Your task to perform on an android device: Go to eBay Image 0: 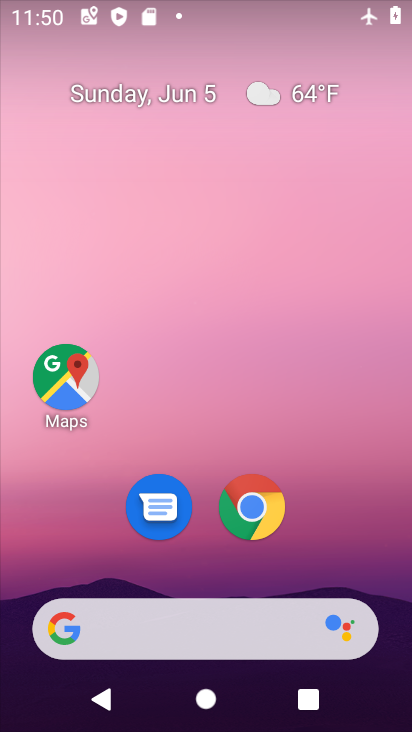
Step 0: click (251, 507)
Your task to perform on an android device: Go to eBay Image 1: 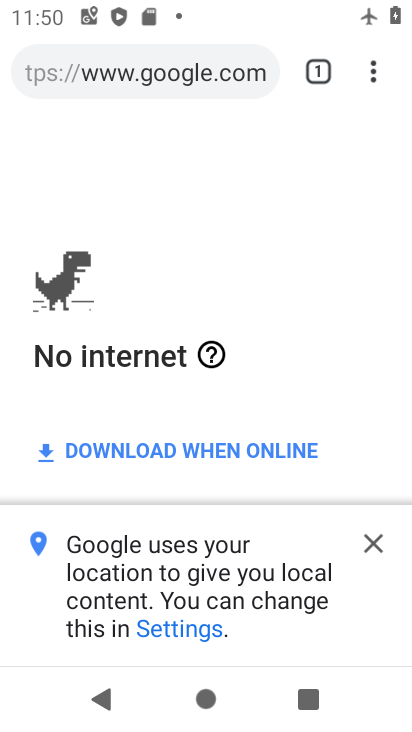
Step 1: click (228, 75)
Your task to perform on an android device: Go to eBay Image 2: 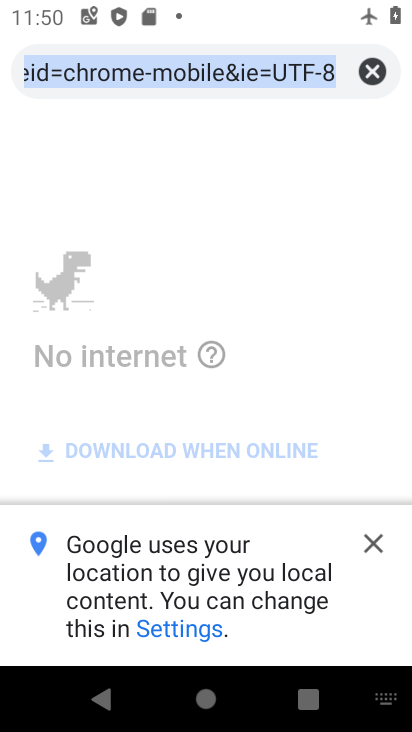
Step 2: type "ebay"
Your task to perform on an android device: Go to eBay Image 3: 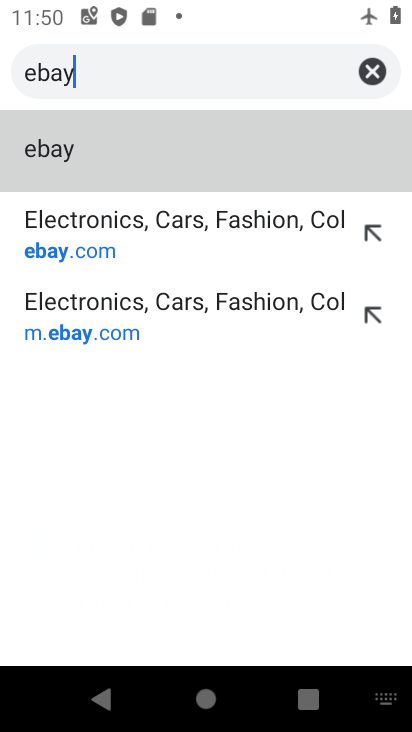
Step 3: click (71, 248)
Your task to perform on an android device: Go to eBay Image 4: 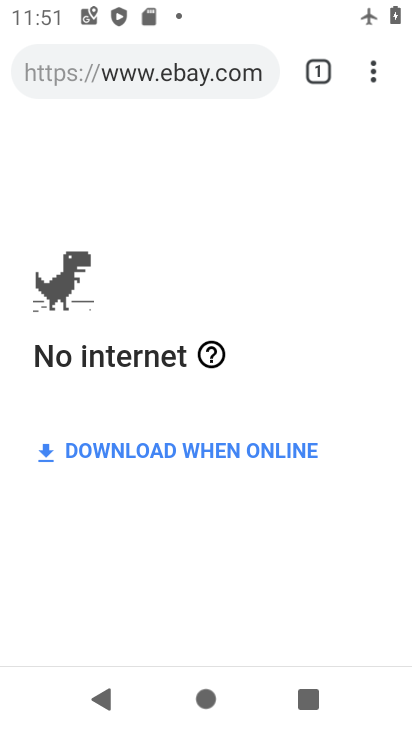
Step 4: task complete